Your task to perform on an android device: Search for Mexican restaurants on Maps Image 0: 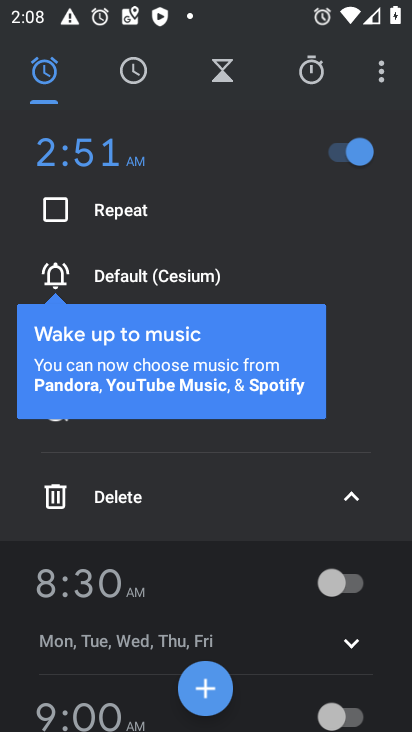
Step 0: press home button
Your task to perform on an android device: Search for Mexican restaurants on Maps Image 1: 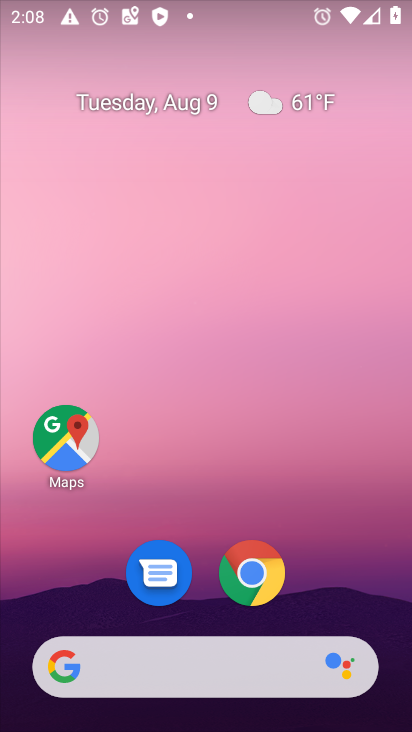
Step 1: click (54, 449)
Your task to perform on an android device: Search for Mexican restaurants on Maps Image 2: 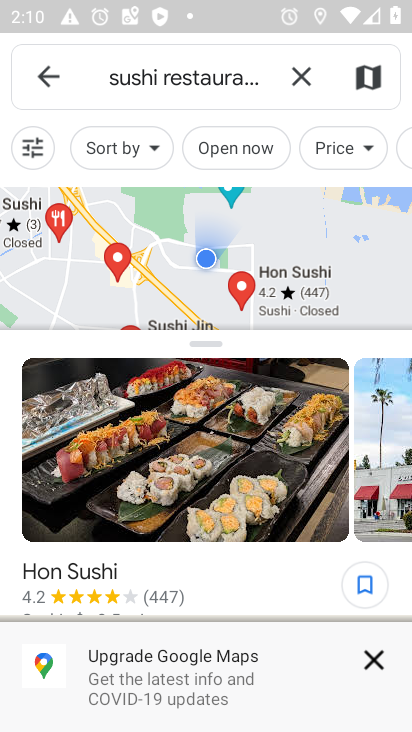
Step 2: click (297, 75)
Your task to perform on an android device: Search for Mexican restaurants on Maps Image 3: 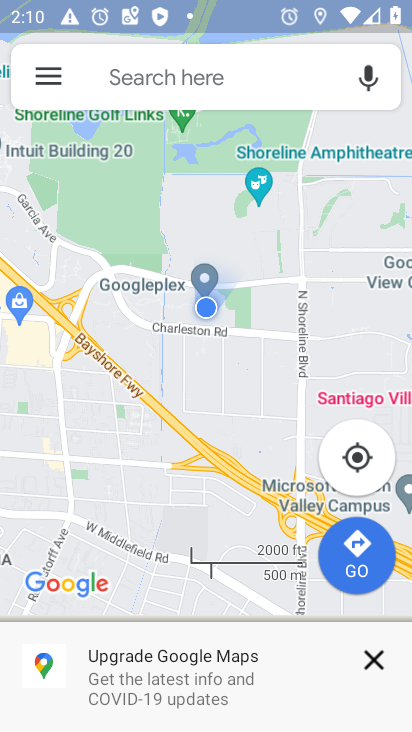
Step 3: click (186, 65)
Your task to perform on an android device: Search for Mexican restaurants on Maps Image 4: 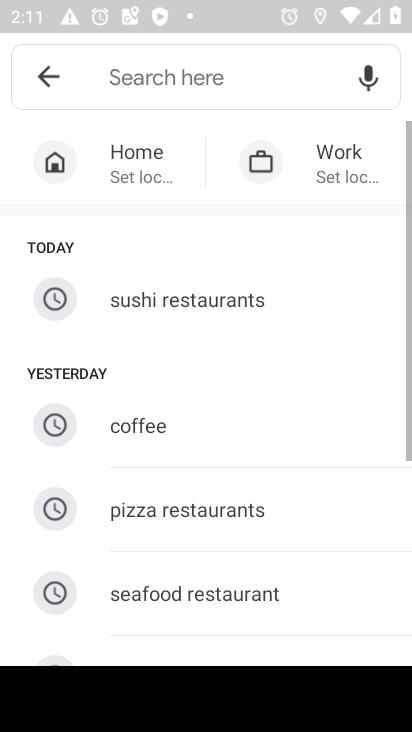
Step 4: drag from (21, 564) to (226, 121)
Your task to perform on an android device: Search for Mexican restaurants on Maps Image 5: 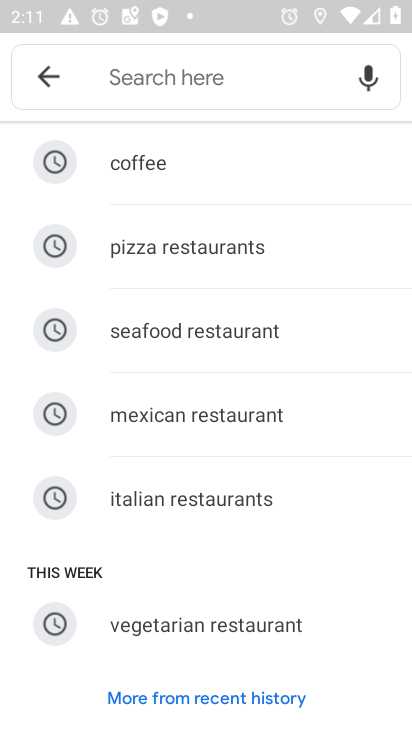
Step 5: click (199, 428)
Your task to perform on an android device: Search for Mexican restaurants on Maps Image 6: 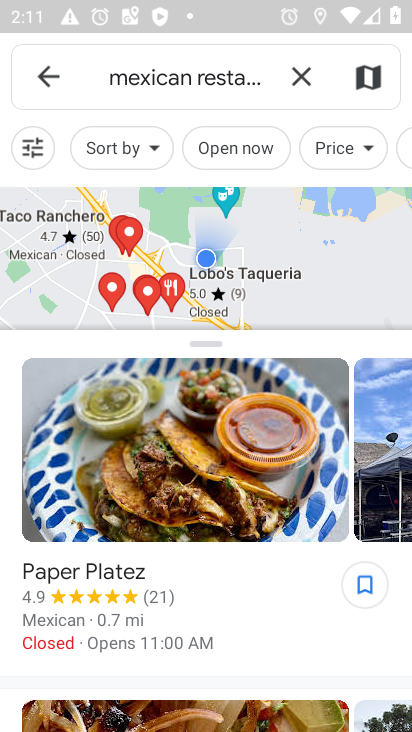
Step 6: task complete